Your task to perform on an android device: show emergency info Image 0: 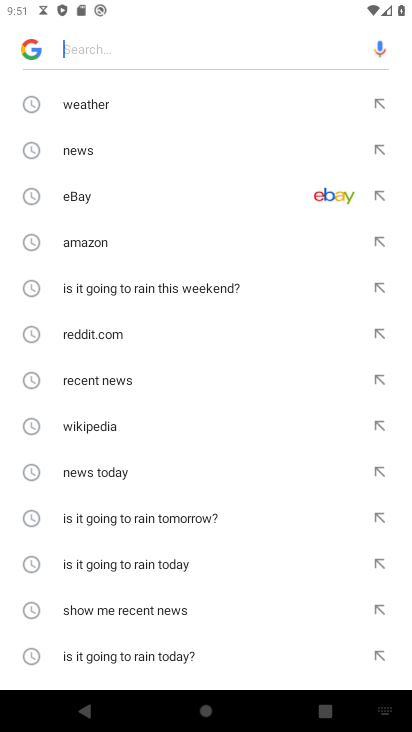
Step 0: press home button
Your task to perform on an android device: show emergency info Image 1: 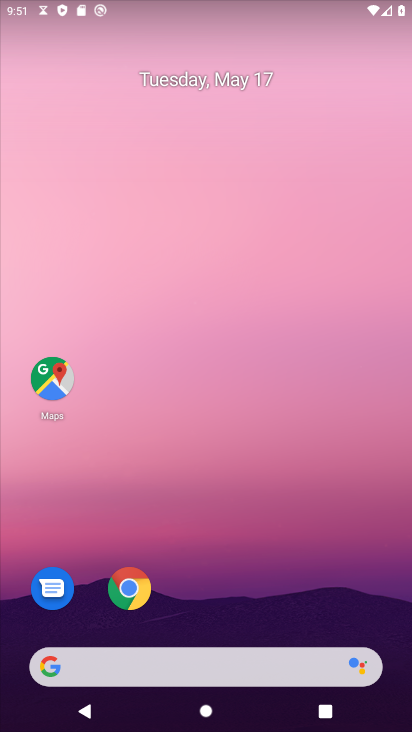
Step 1: drag from (228, 722) to (239, 105)
Your task to perform on an android device: show emergency info Image 2: 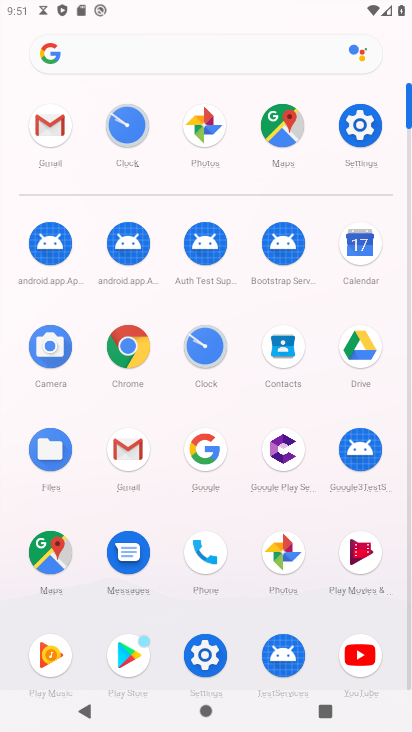
Step 2: click (370, 123)
Your task to perform on an android device: show emergency info Image 3: 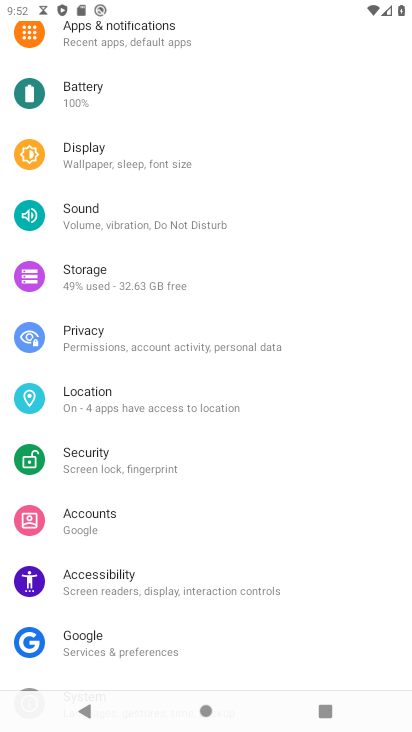
Step 3: drag from (217, 633) to (230, 183)
Your task to perform on an android device: show emergency info Image 4: 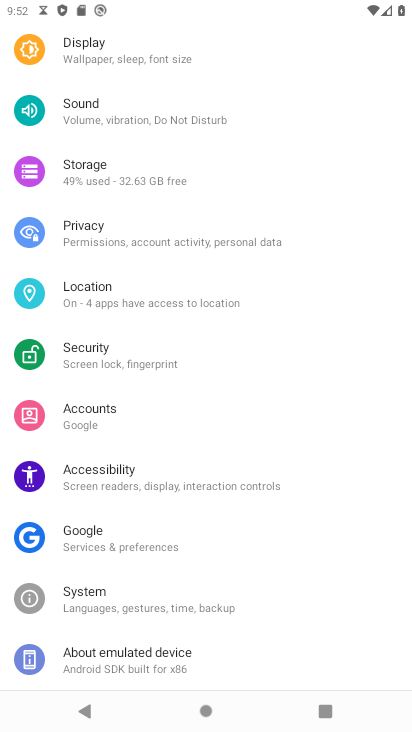
Step 4: click (136, 655)
Your task to perform on an android device: show emergency info Image 5: 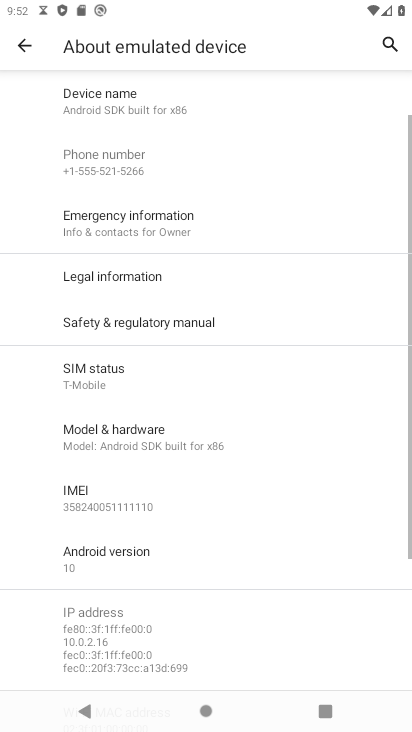
Step 5: click (124, 224)
Your task to perform on an android device: show emergency info Image 6: 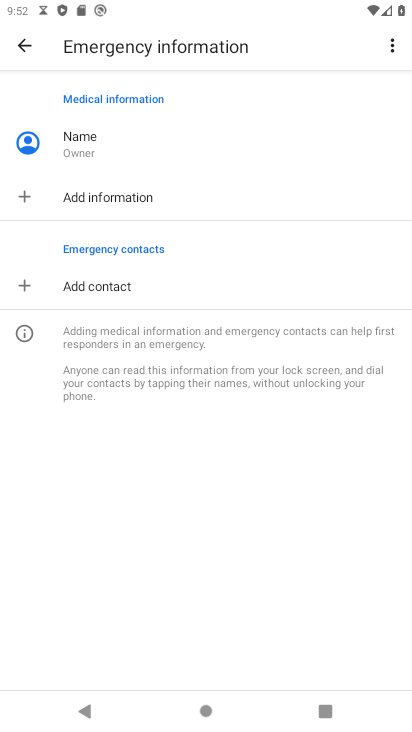
Step 6: task complete